Your task to perform on an android device: What's the weather today? Image 0: 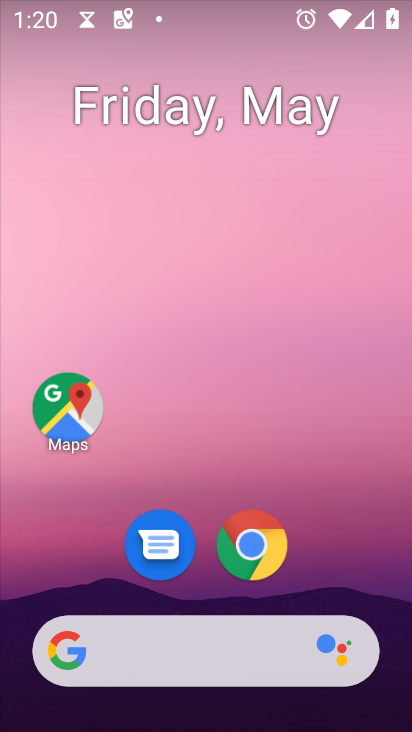
Step 0: click (163, 649)
Your task to perform on an android device: What's the weather today? Image 1: 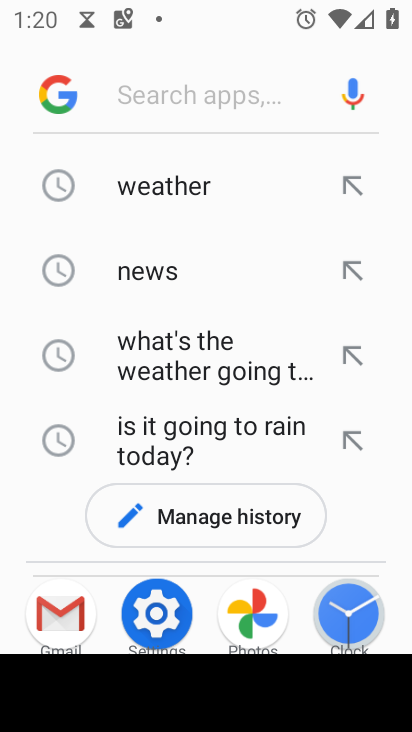
Step 1: click (176, 198)
Your task to perform on an android device: What's the weather today? Image 2: 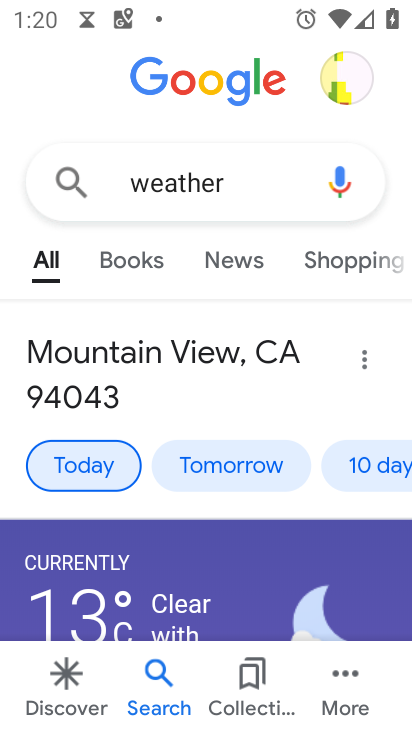
Step 2: task complete